Your task to perform on an android device: delete a single message in the gmail app Image 0: 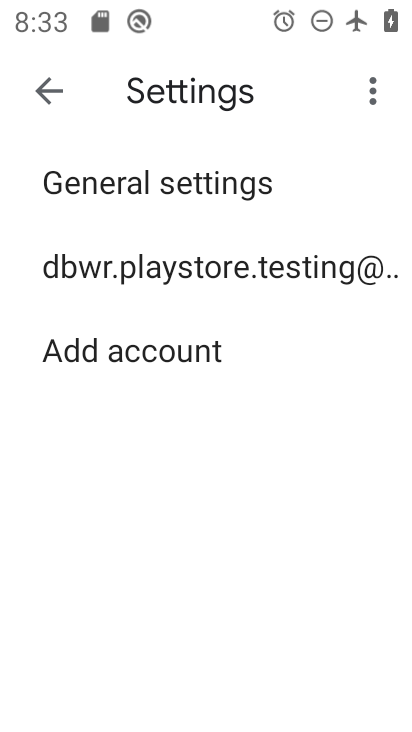
Step 0: press home button
Your task to perform on an android device: delete a single message in the gmail app Image 1: 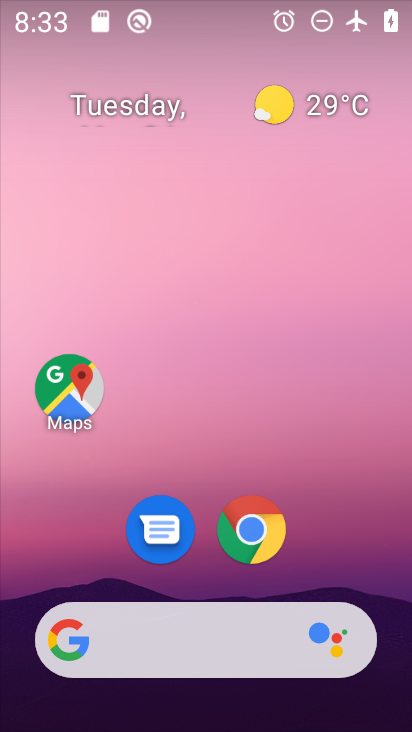
Step 1: drag from (395, 632) to (284, 115)
Your task to perform on an android device: delete a single message in the gmail app Image 2: 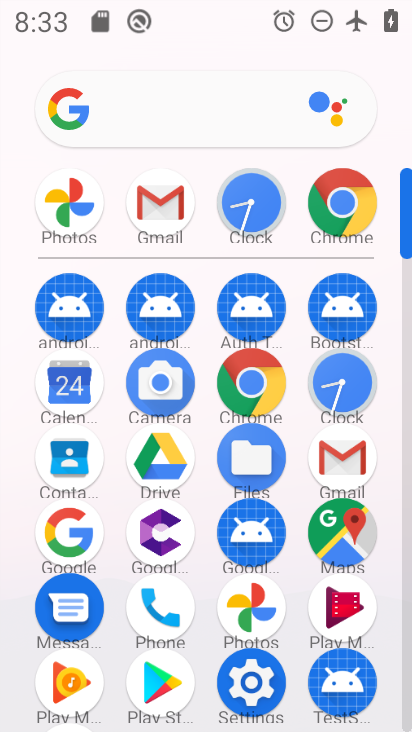
Step 2: click (359, 461)
Your task to perform on an android device: delete a single message in the gmail app Image 3: 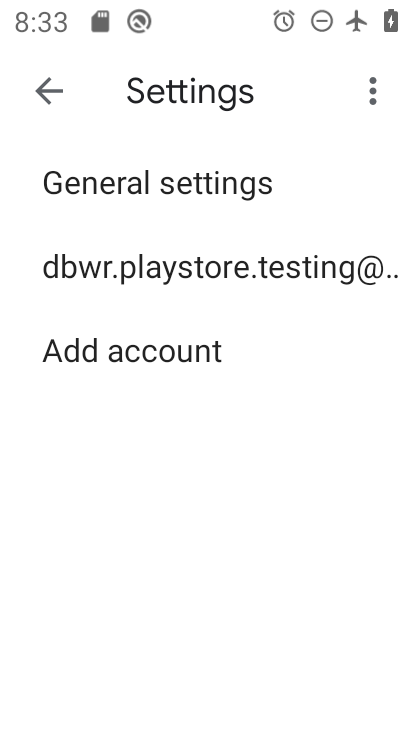
Step 3: task complete